Your task to perform on an android device: Check the weather Image 0: 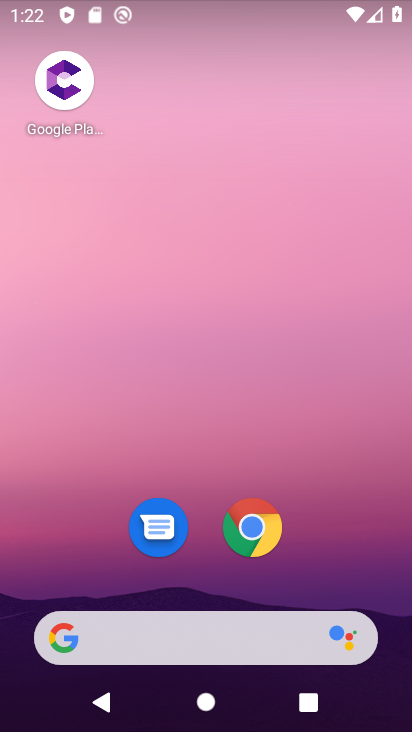
Step 0: drag from (205, 588) to (315, 35)
Your task to perform on an android device: Check the weather Image 1: 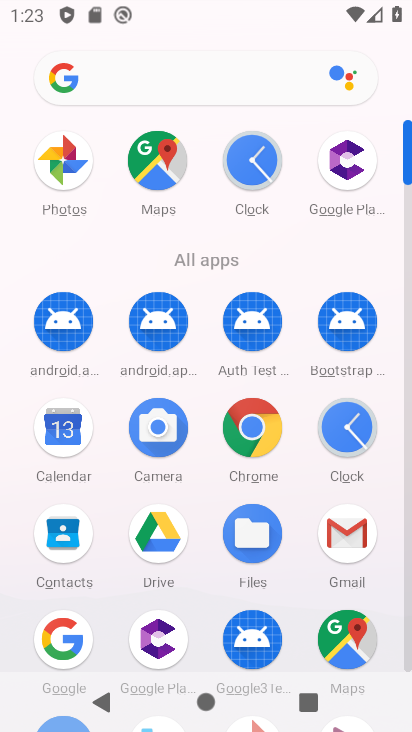
Step 1: click (58, 637)
Your task to perform on an android device: Check the weather Image 2: 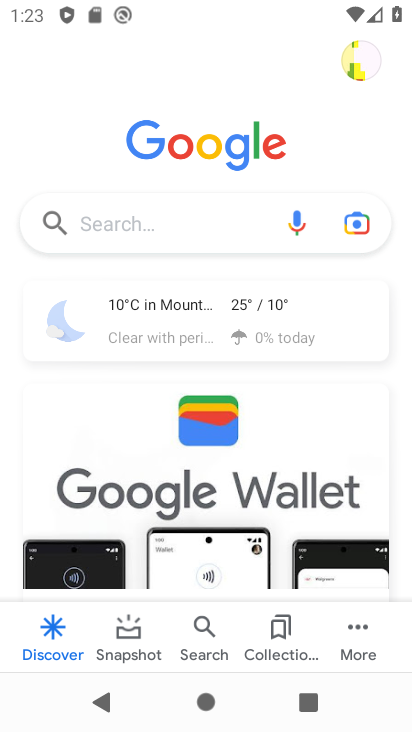
Step 2: click (154, 319)
Your task to perform on an android device: Check the weather Image 3: 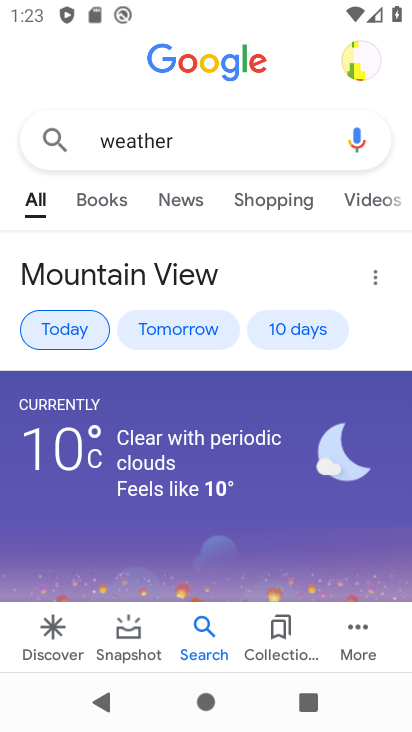
Step 3: task complete